Your task to perform on an android device: check out phone information Image 0: 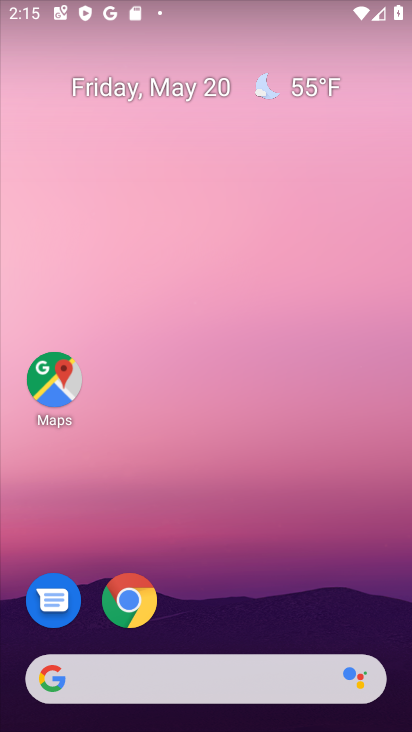
Step 0: drag from (235, 632) to (238, 244)
Your task to perform on an android device: check out phone information Image 1: 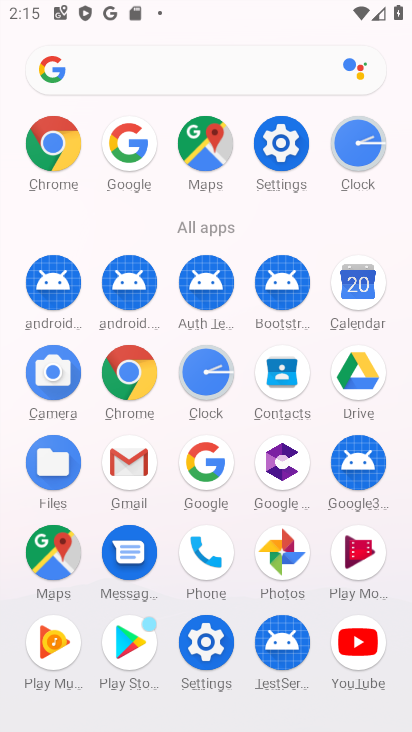
Step 1: click (273, 178)
Your task to perform on an android device: check out phone information Image 2: 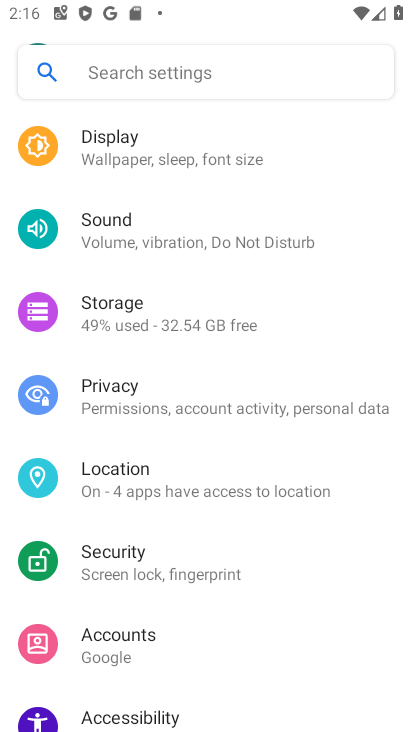
Step 2: drag from (175, 473) to (178, 112)
Your task to perform on an android device: check out phone information Image 3: 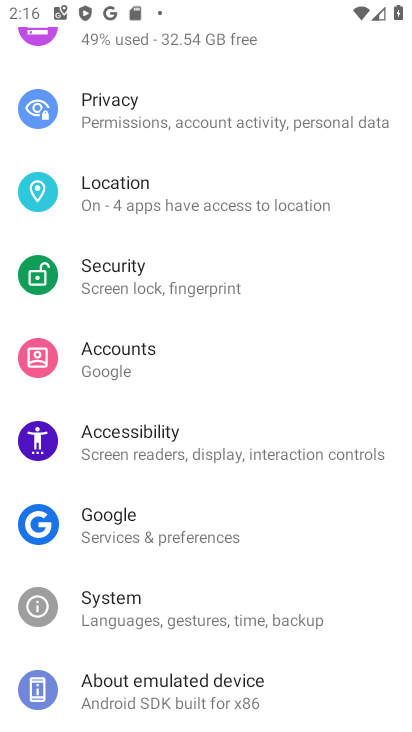
Step 3: click (180, 698)
Your task to perform on an android device: check out phone information Image 4: 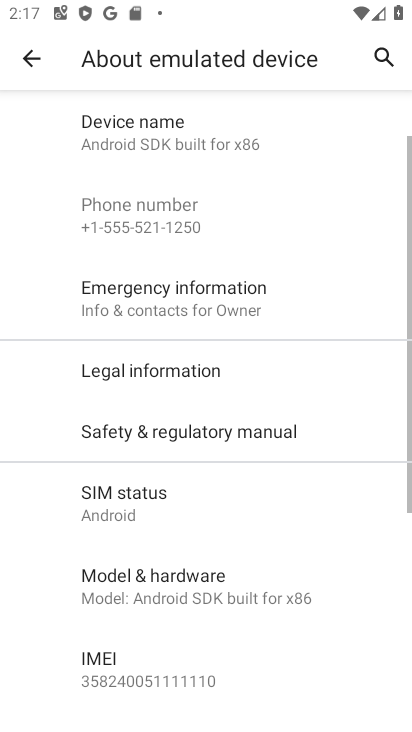
Step 4: task complete